Your task to perform on an android device: snooze an email in the gmail app Image 0: 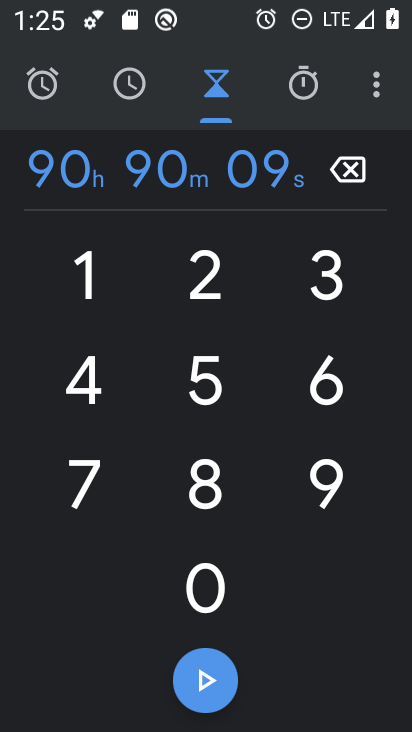
Step 0: press home button
Your task to perform on an android device: snooze an email in the gmail app Image 1: 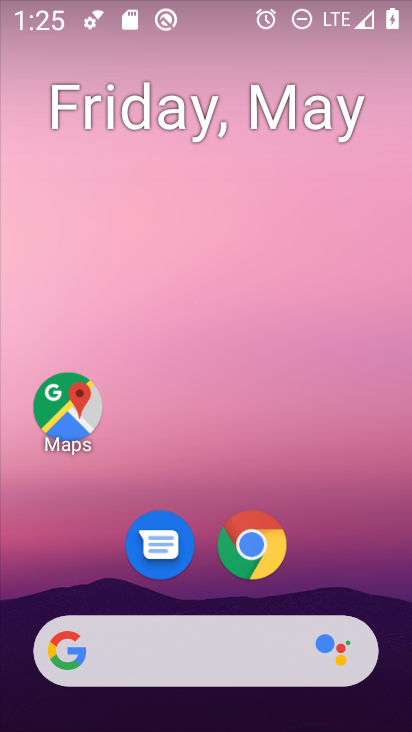
Step 1: drag from (315, 574) to (270, 201)
Your task to perform on an android device: snooze an email in the gmail app Image 2: 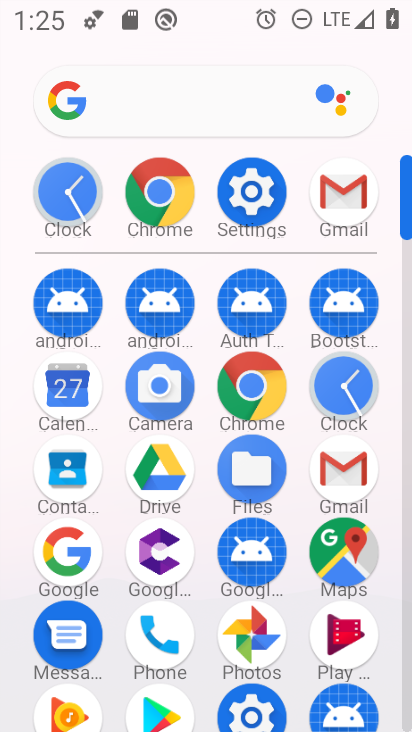
Step 2: click (353, 461)
Your task to perform on an android device: snooze an email in the gmail app Image 3: 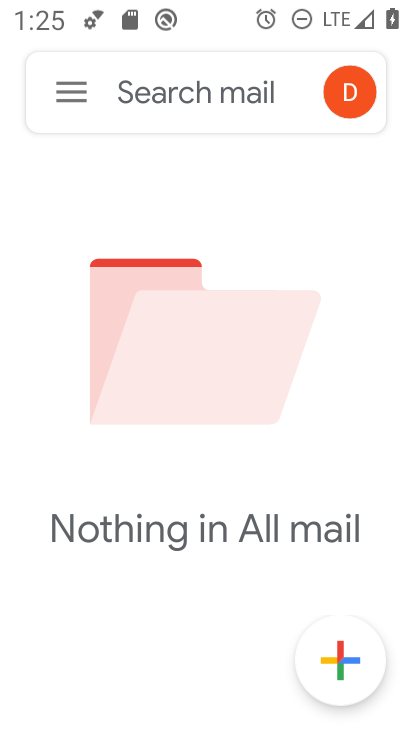
Step 3: click (67, 96)
Your task to perform on an android device: snooze an email in the gmail app Image 4: 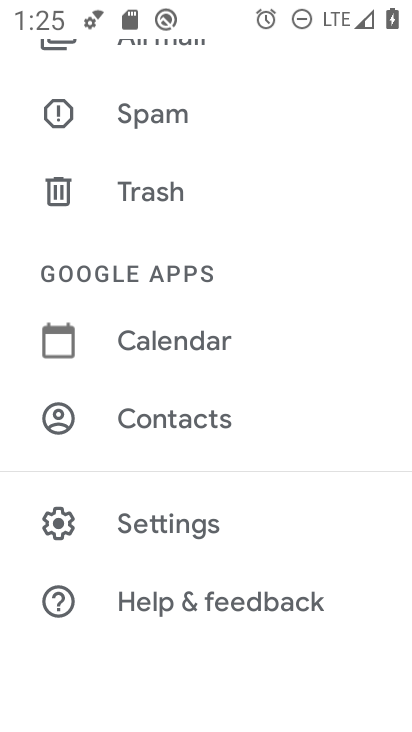
Step 4: click (167, 529)
Your task to perform on an android device: snooze an email in the gmail app Image 5: 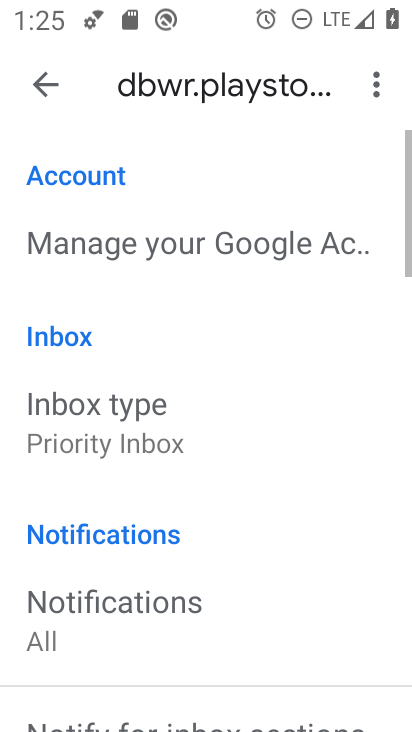
Step 5: click (48, 91)
Your task to perform on an android device: snooze an email in the gmail app Image 6: 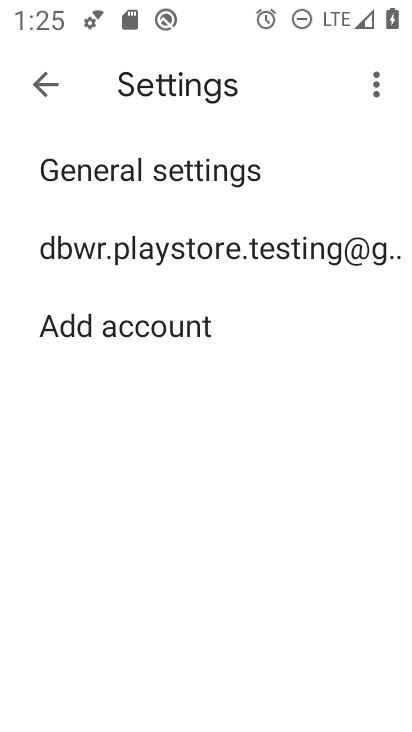
Step 6: drag from (249, 183) to (280, 617)
Your task to perform on an android device: snooze an email in the gmail app Image 7: 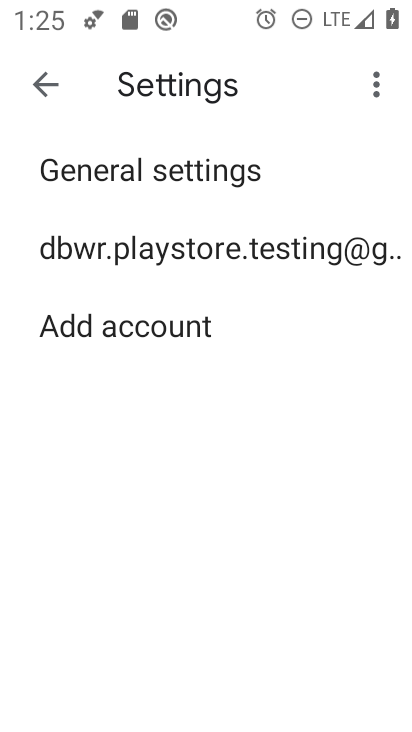
Step 7: click (51, 95)
Your task to perform on an android device: snooze an email in the gmail app Image 8: 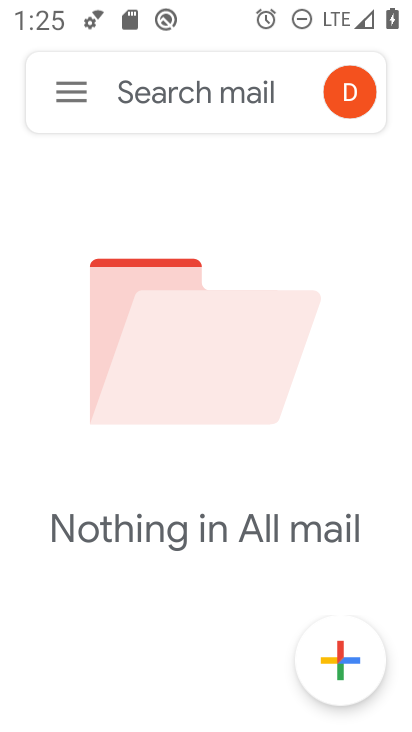
Step 8: drag from (229, 194) to (282, 543)
Your task to perform on an android device: snooze an email in the gmail app Image 9: 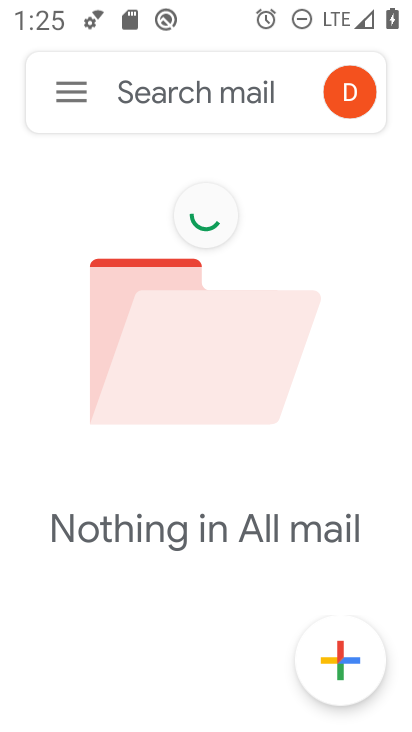
Step 9: click (60, 94)
Your task to perform on an android device: snooze an email in the gmail app Image 10: 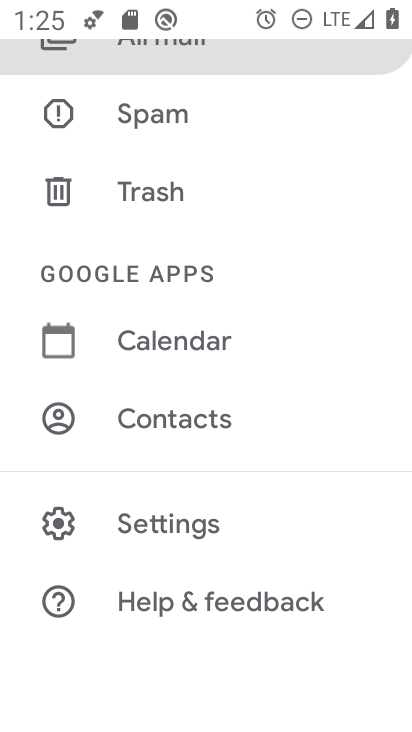
Step 10: drag from (208, 175) to (265, 695)
Your task to perform on an android device: snooze an email in the gmail app Image 11: 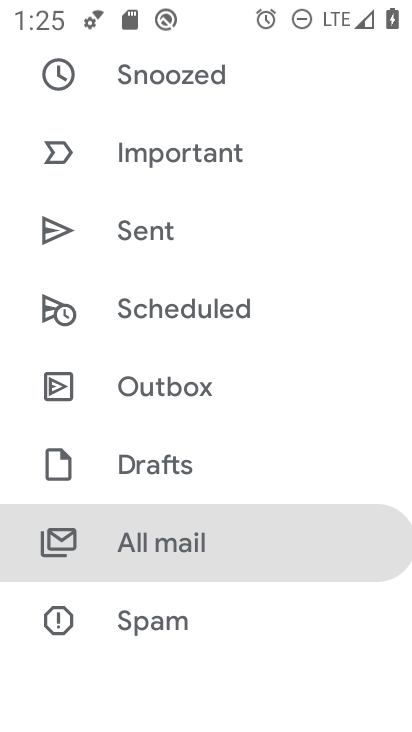
Step 11: click (210, 93)
Your task to perform on an android device: snooze an email in the gmail app Image 12: 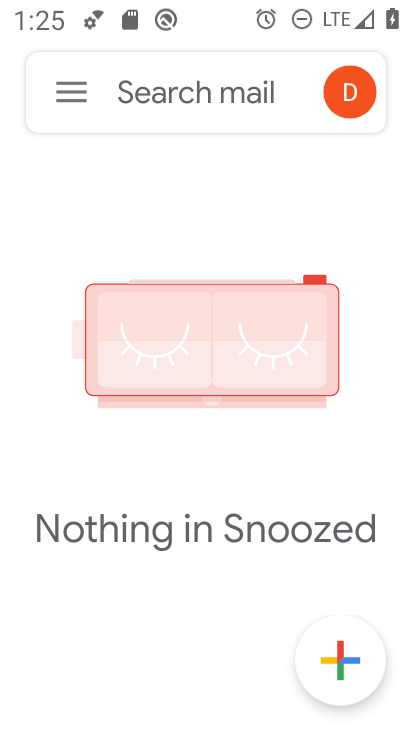
Step 12: task complete